Your task to perform on an android device: Open calendar and show me the fourth week of next month Image 0: 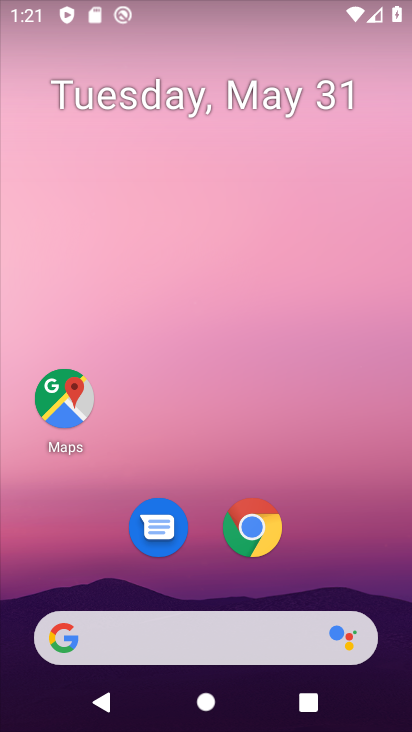
Step 0: drag from (368, 531) to (337, 26)
Your task to perform on an android device: Open calendar and show me the fourth week of next month Image 1: 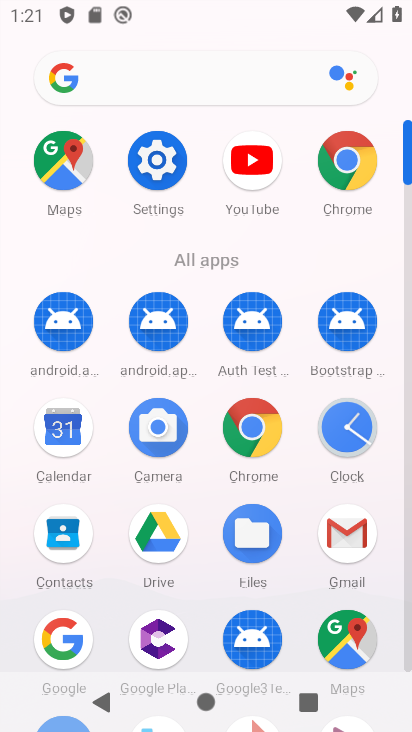
Step 1: click (75, 425)
Your task to perform on an android device: Open calendar and show me the fourth week of next month Image 2: 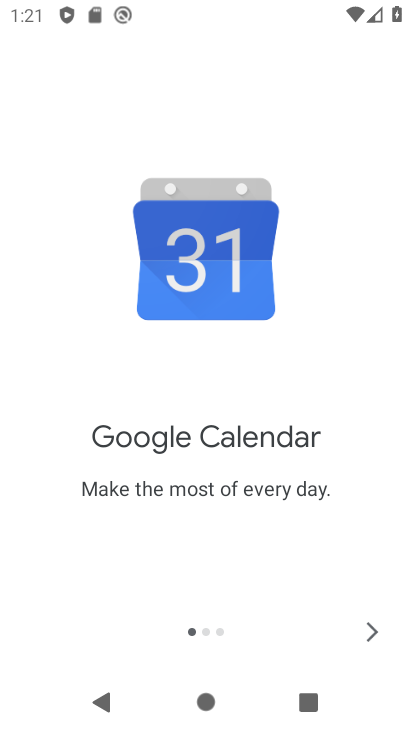
Step 2: click (366, 630)
Your task to perform on an android device: Open calendar and show me the fourth week of next month Image 3: 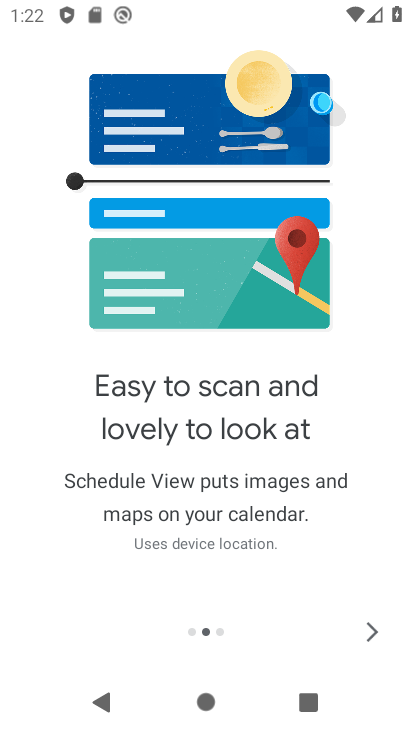
Step 3: click (370, 628)
Your task to perform on an android device: Open calendar and show me the fourth week of next month Image 4: 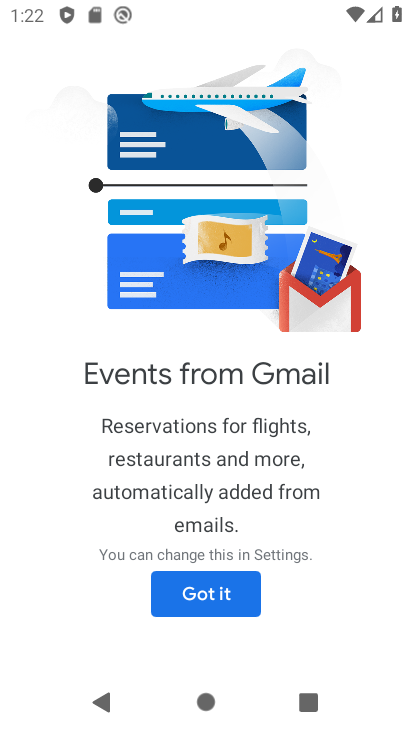
Step 4: click (208, 598)
Your task to perform on an android device: Open calendar and show me the fourth week of next month Image 5: 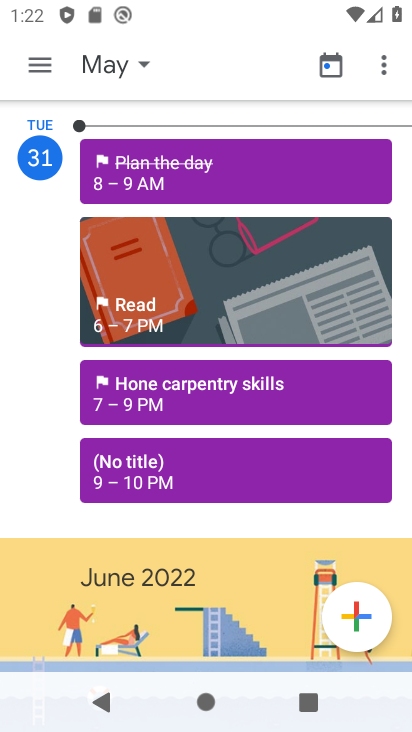
Step 5: click (128, 68)
Your task to perform on an android device: Open calendar and show me the fourth week of next month Image 6: 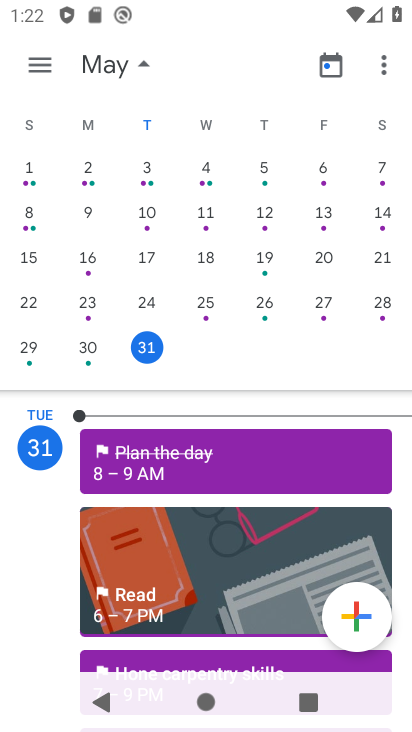
Step 6: drag from (347, 234) to (37, 297)
Your task to perform on an android device: Open calendar and show me the fourth week of next month Image 7: 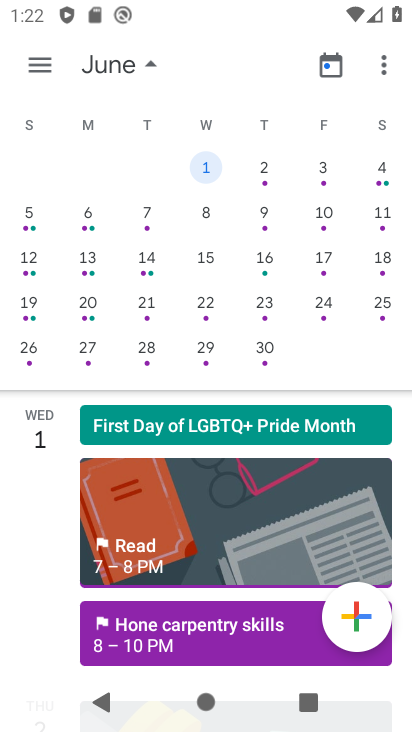
Step 7: click (148, 347)
Your task to perform on an android device: Open calendar and show me the fourth week of next month Image 8: 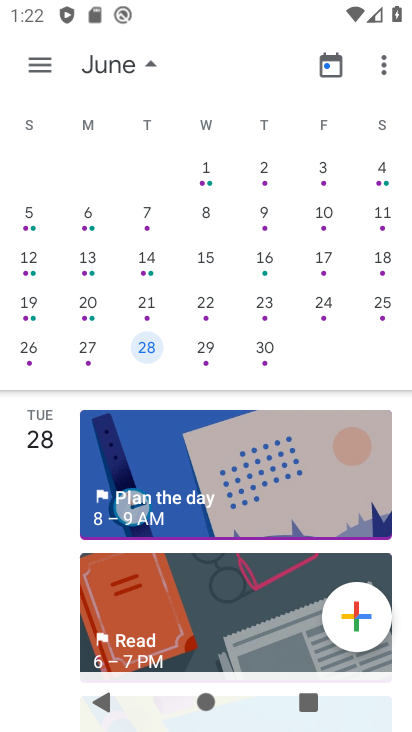
Step 8: task complete